Your task to perform on an android device: Go to Amazon Image 0: 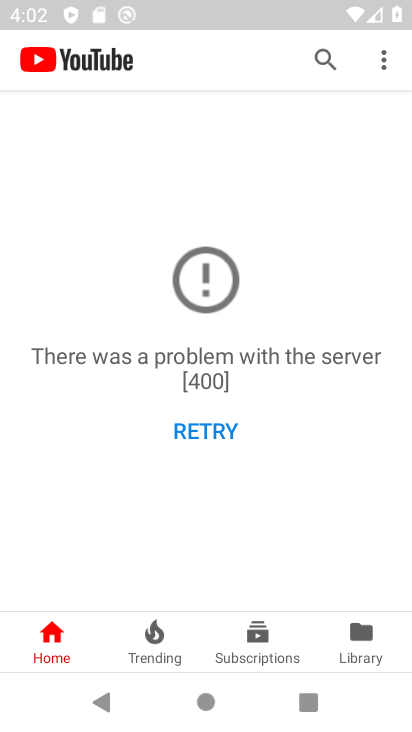
Step 0: press home button
Your task to perform on an android device: Go to Amazon Image 1: 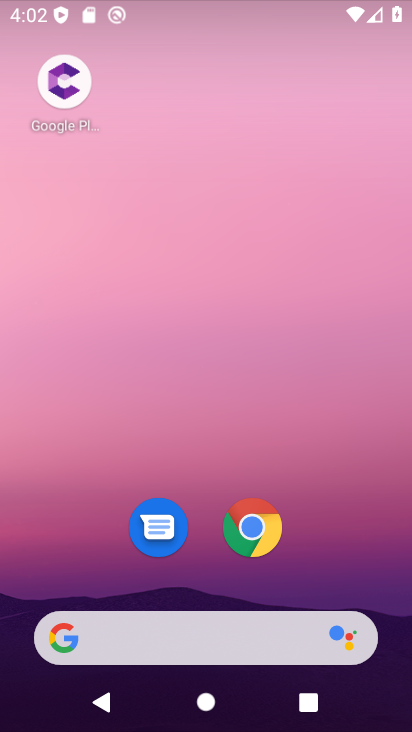
Step 1: drag from (225, 705) to (233, 6)
Your task to perform on an android device: Go to Amazon Image 2: 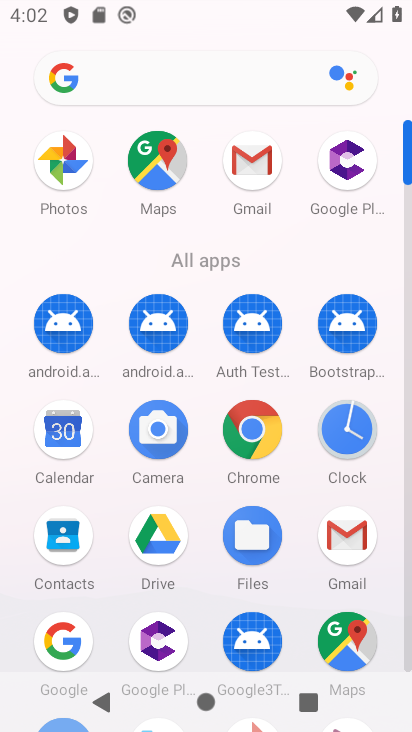
Step 2: click (254, 436)
Your task to perform on an android device: Go to Amazon Image 3: 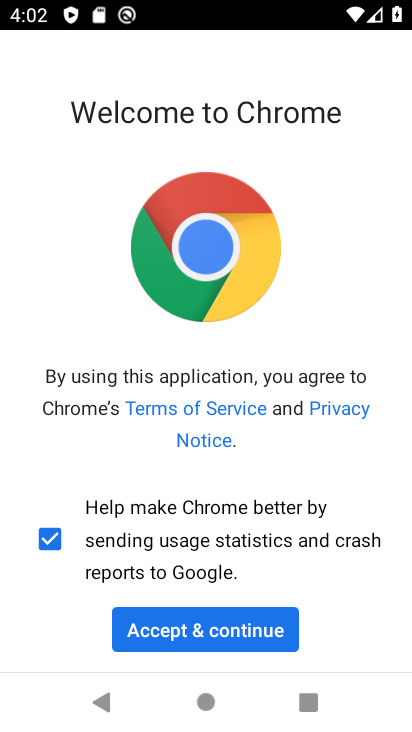
Step 3: click (237, 639)
Your task to perform on an android device: Go to Amazon Image 4: 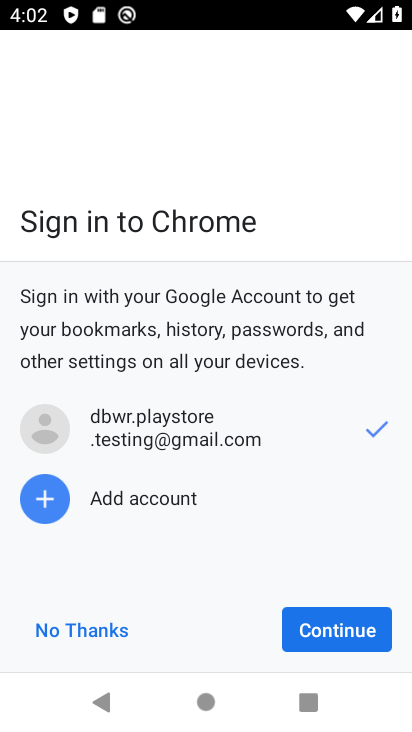
Step 4: click (317, 627)
Your task to perform on an android device: Go to Amazon Image 5: 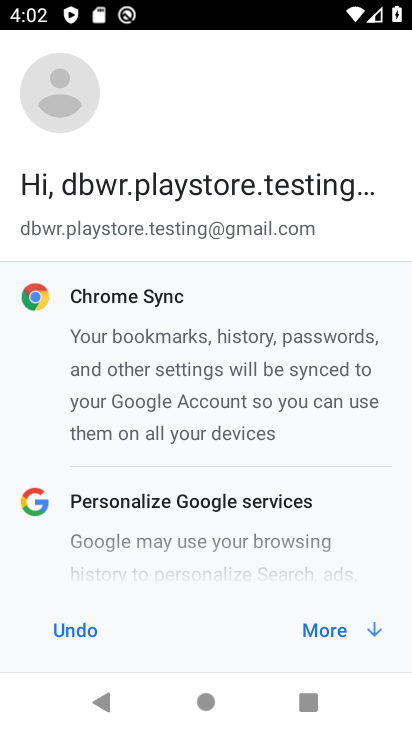
Step 5: click (322, 628)
Your task to perform on an android device: Go to Amazon Image 6: 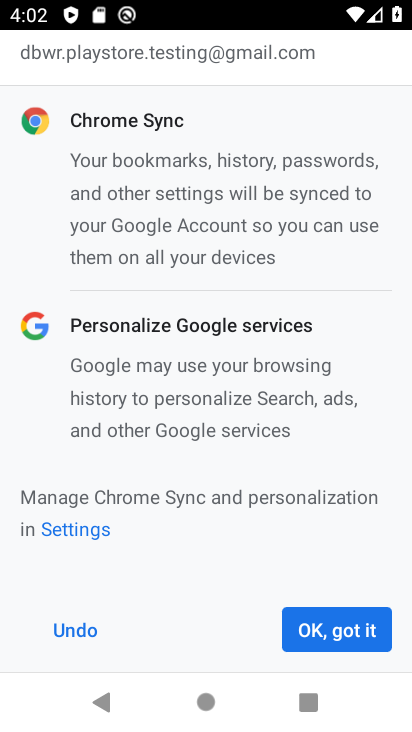
Step 6: click (324, 626)
Your task to perform on an android device: Go to Amazon Image 7: 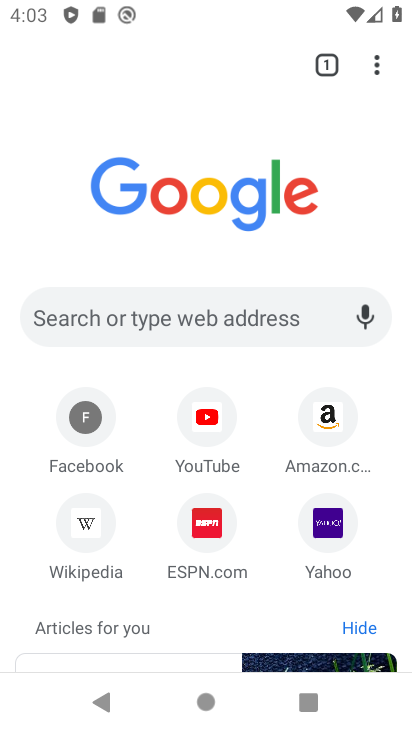
Step 7: click (326, 424)
Your task to perform on an android device: Go to Amazon Image 8: 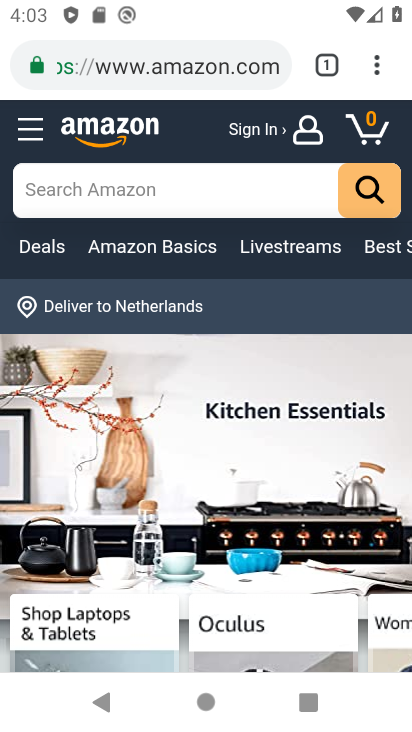
Step 8: task complete